Your task to perform on an android device: open app "Walmart Shopping & Grocery" (install if not already installed) Image 0: 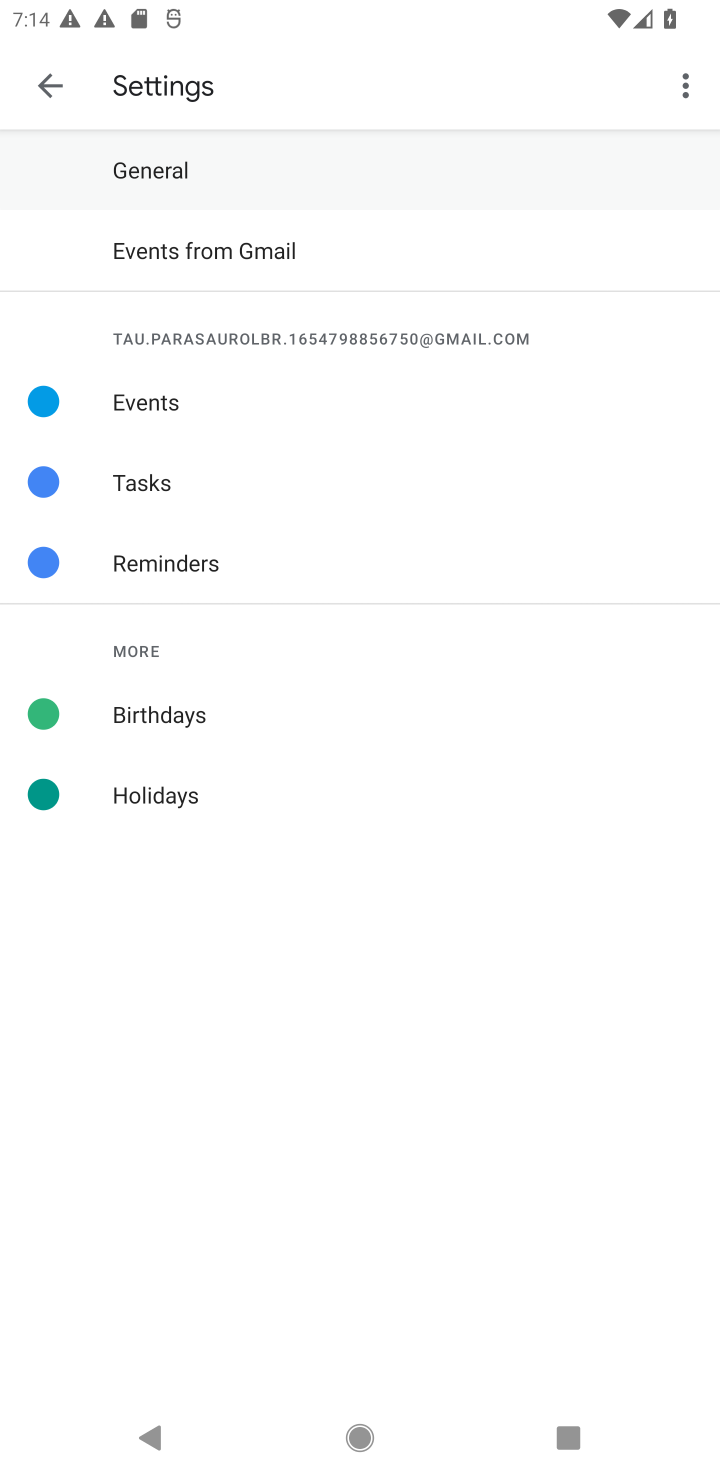
Step 0: press home button
Your task to perform on an android device: open app "Walmart Shopping & Grocery" (install if not already installed) Image 1: 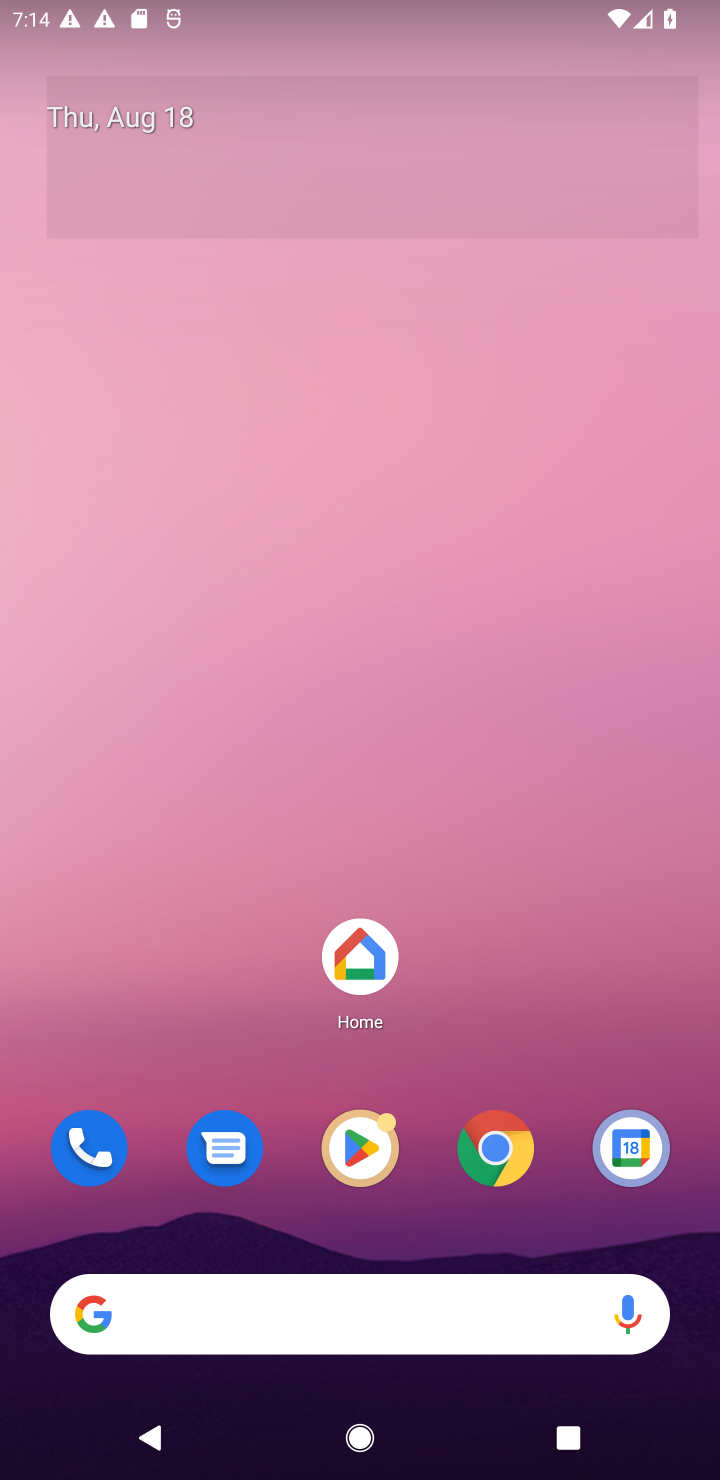
Step 1: drag from (459, 1076) to (29, 1050)
Your task to perform on an android device: open app "Walmart Shopping & Grocery" (install if not already installed) Image 2: 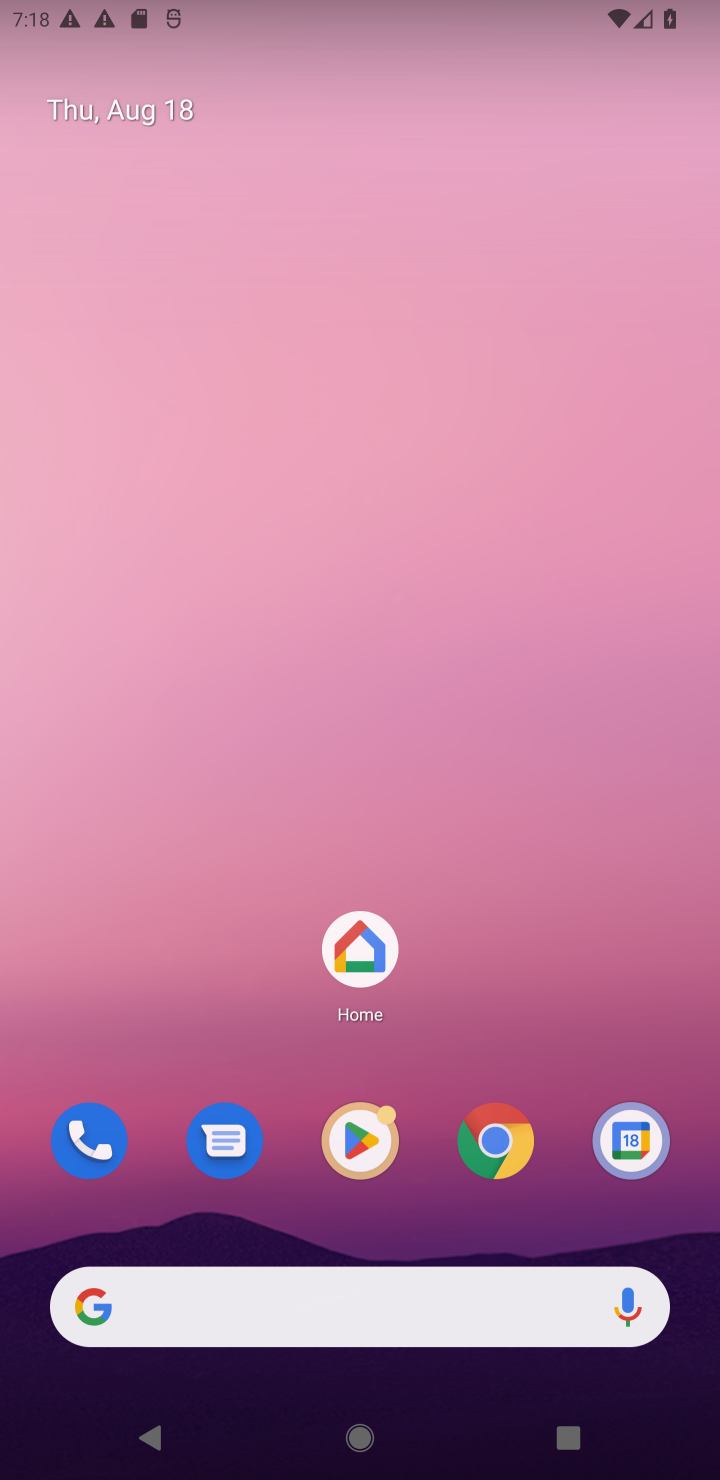
Step 2: drag from (493, 1098) to (707, 168)
Your task to perform on an android device: open app "Walmart Shopping & Grocery" (install if not already installed) Image 3: 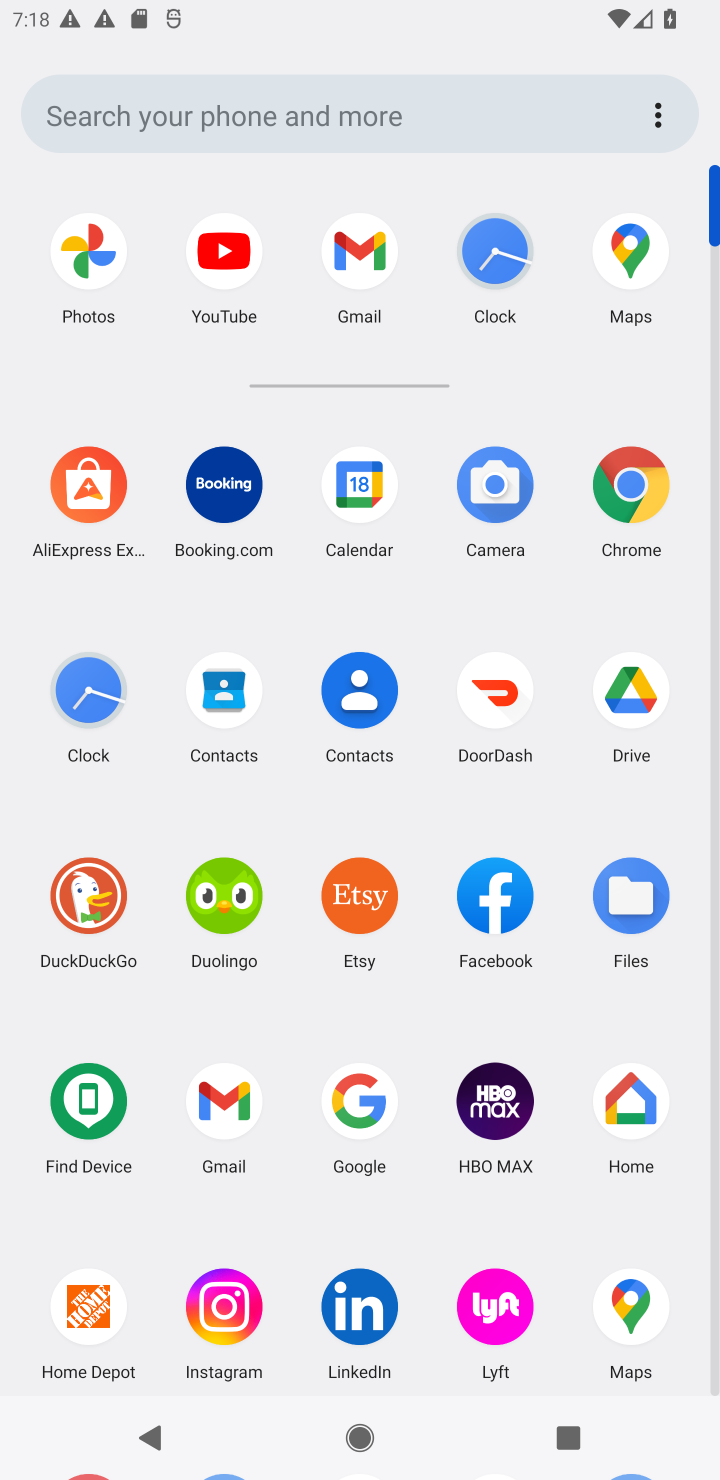
Step 3: drag from (287, 1205) to (612, 319)
Your task to perform on an android device: open app "Walmart Shopping & Grocery" (install if not already installed) Image 4: 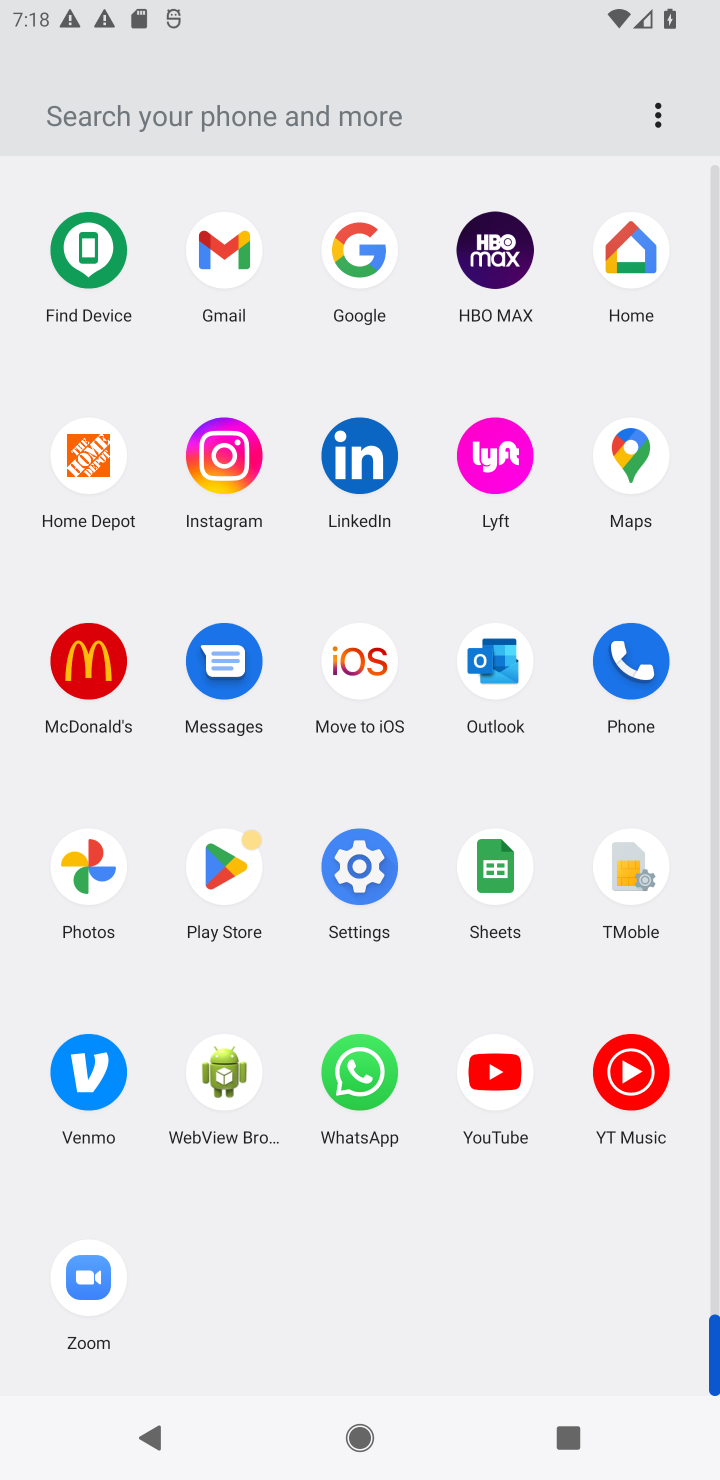
Step 4: click (215, 861)
Your task to perform on an android device: open app "Walmart Shopping & Grocery" (install if not already installed) Image 5: 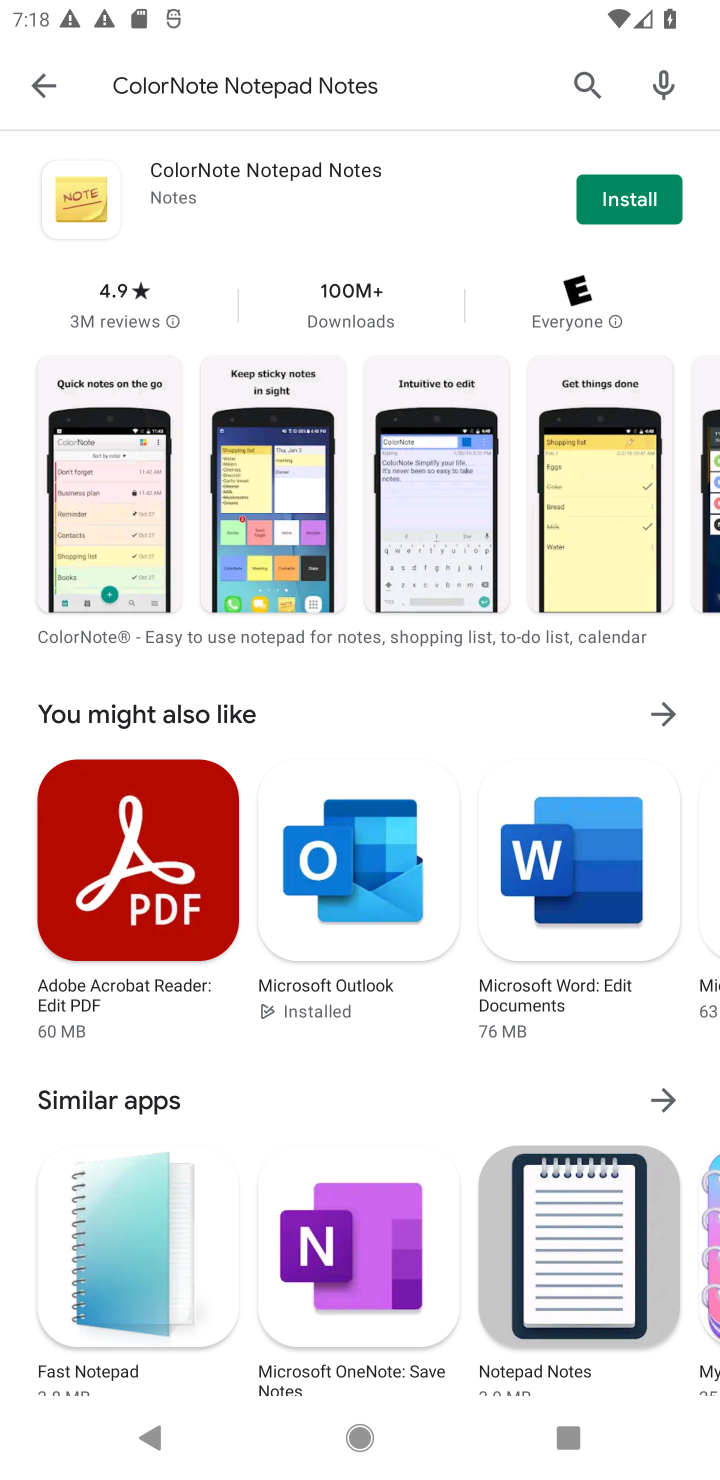
Step 5: press back button
Your task to perform on an android device: open app "Walmart Shopping & Grocery" (install if not already installed) Image 6: 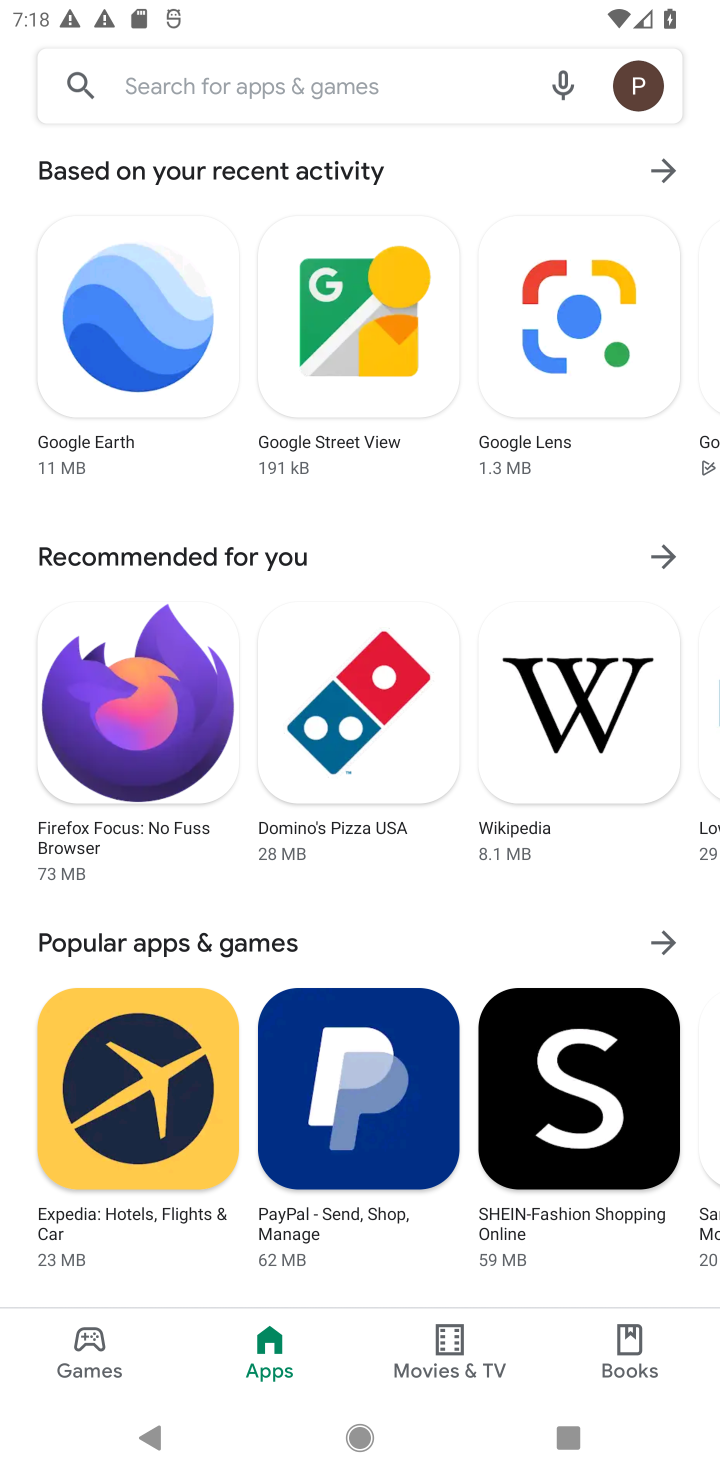
Step 6: click (192, 82)
Your task to perform on an android device: open app "Walmart Shopping & Grocery" (install if not already installed) Image 7: 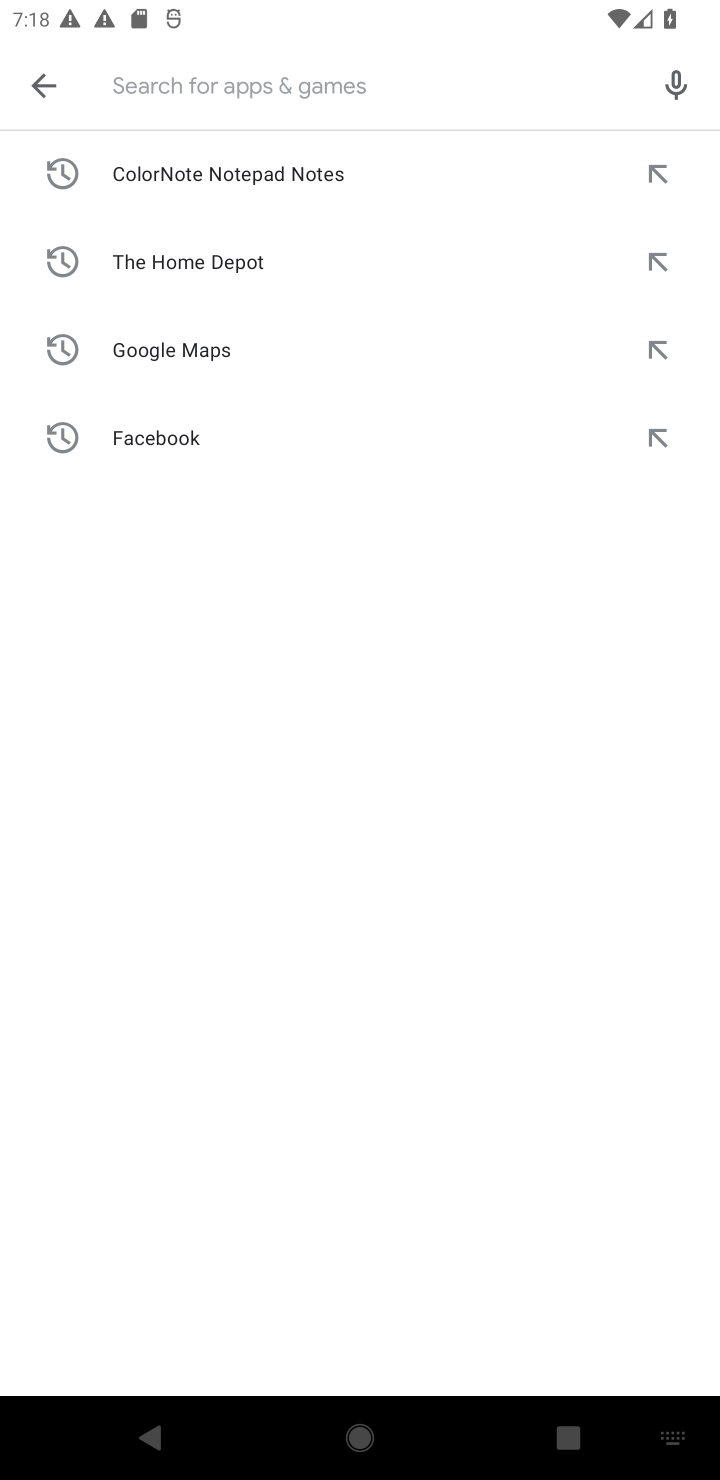
Step 7: type "Walmart Shopping & Grocery"
Your task to perform on an android device: open app "Walmart Shopping & Grocery" (install if not already installed) Image 8: 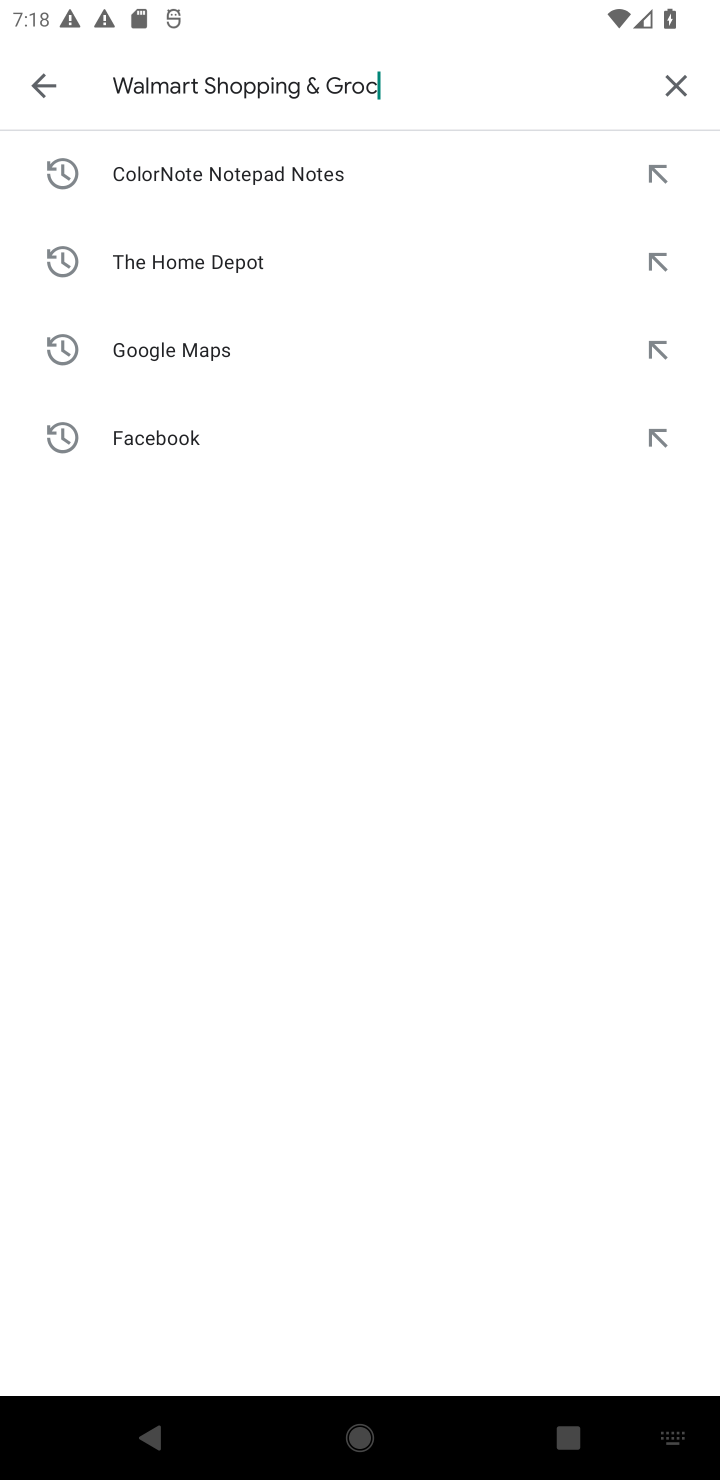
Step 8: press enter
Your task to perform on an android device: open app "Walmart Shopping & Grocery" (install if not already installed) Image 9: 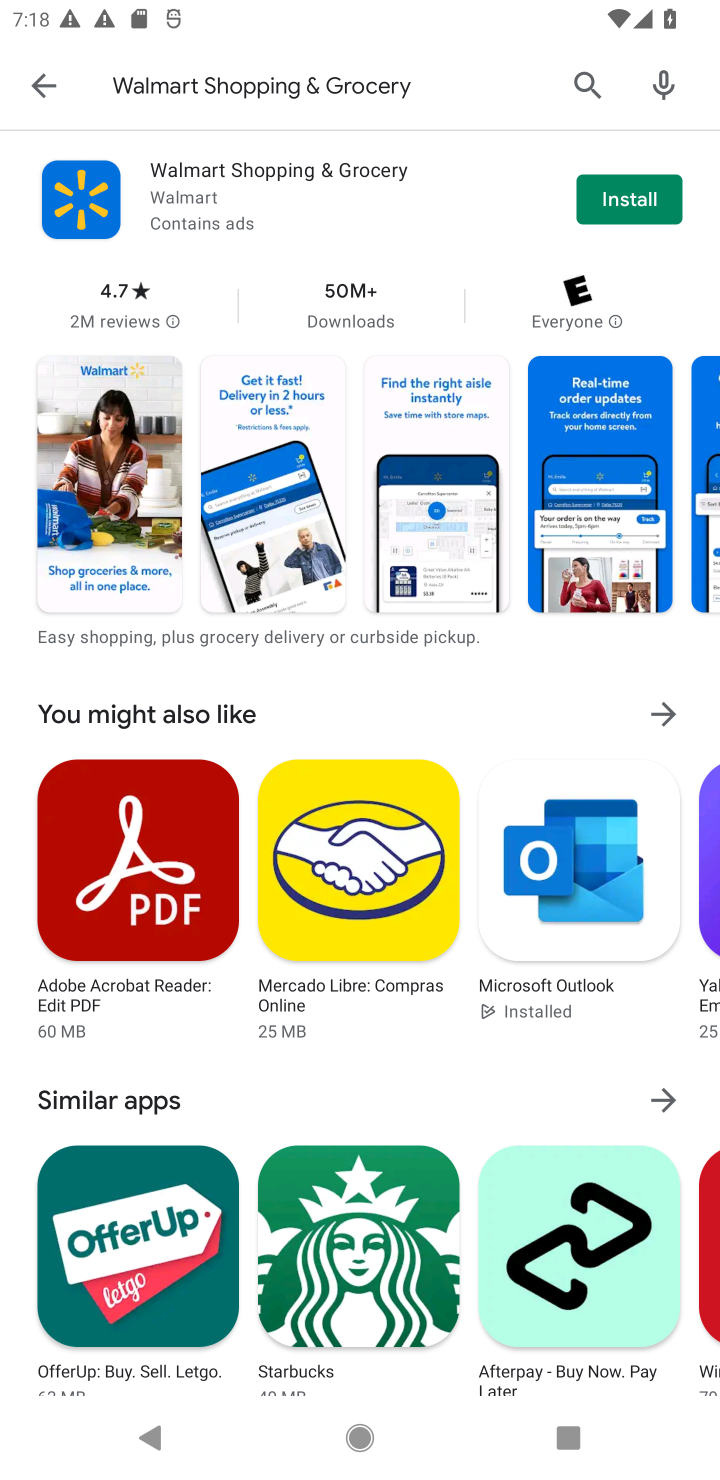
Step 9: click (637, 193)
Your task to perform on an android device: open app "Walmart Shopping & Grocery" (install if not already installed) Image 10: 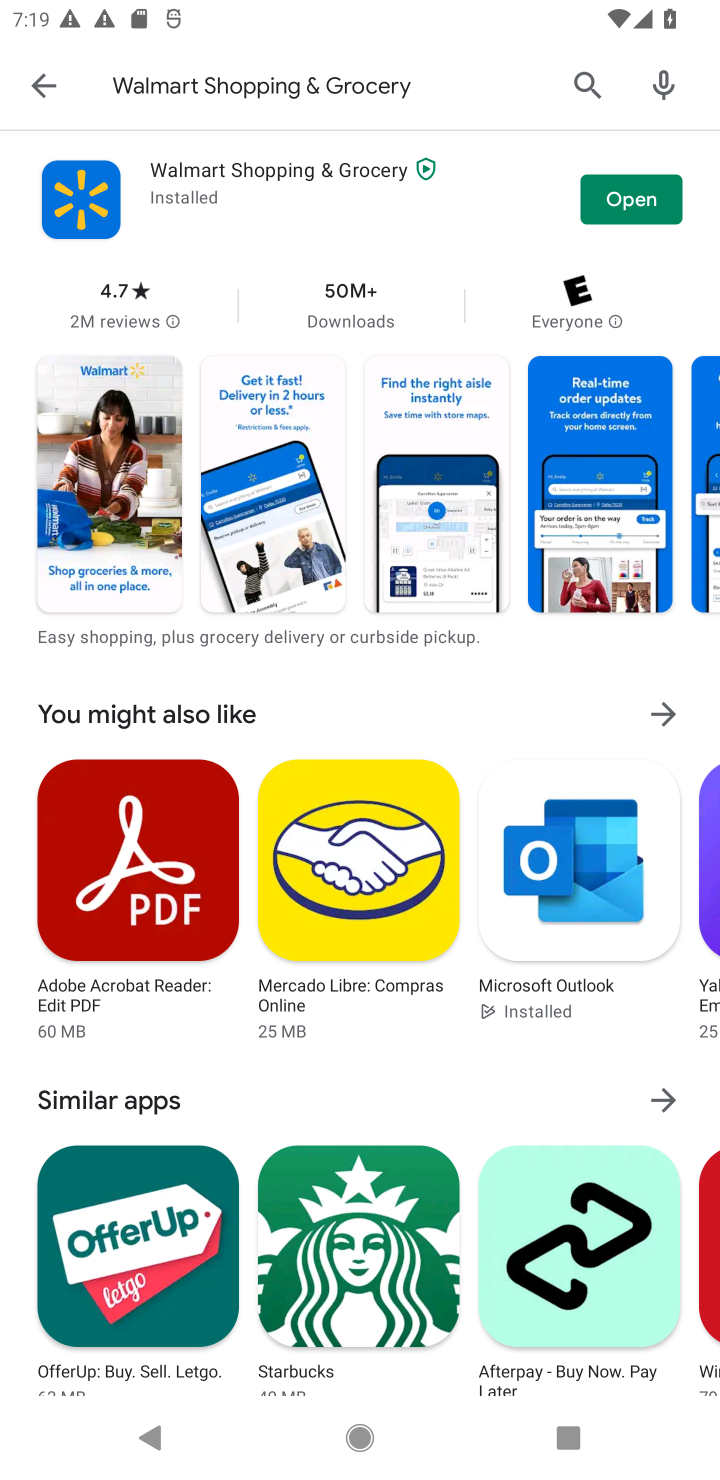
Step 10: click (639, 199)
Your task to perform on an android device: open app "Walmart Shopping & Grocery" (install if not already installed) Image 11: 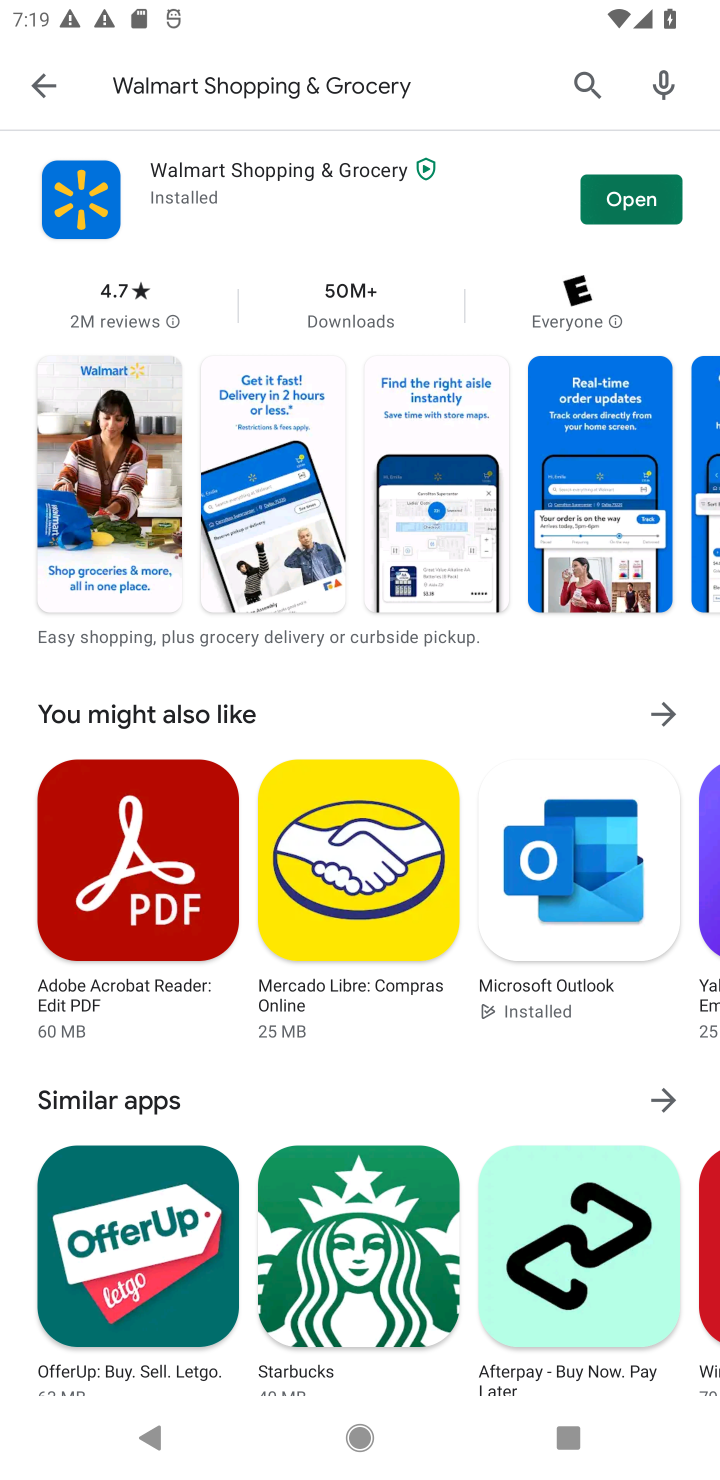
Step 11: task complete